Your task to perform on an android device: find which apps use the phone's location Image 0: 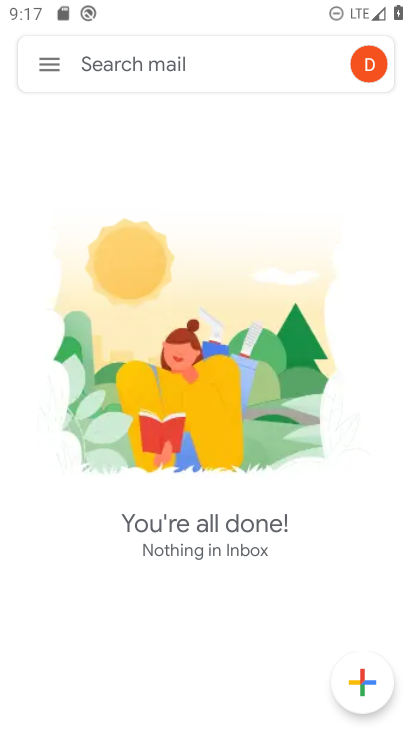
Step 0: press home button
Your task to perform on an android device: find which apps use the phone's location Image 1: 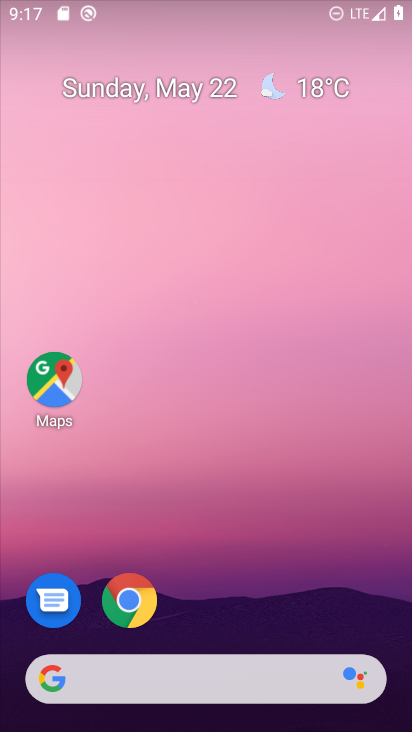
Step 1: drag from (382, 644) to (283, 81)
Your task to perform on an android device: find which apps use the phone's location Image 2: 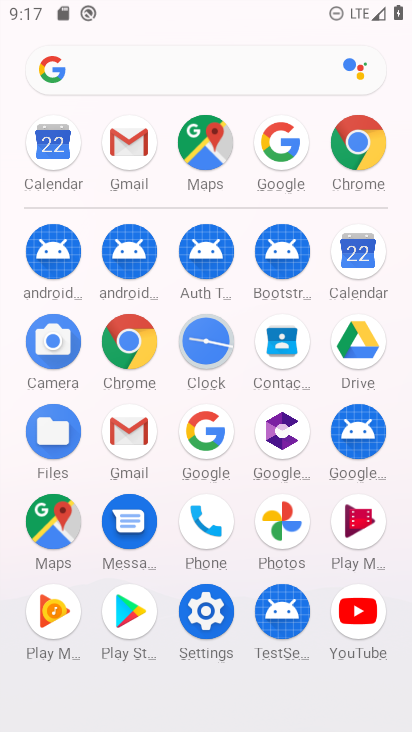
Step 2: click (212, 617)
Your task to perform on an android device: find which apps use the phone's location Image 3: 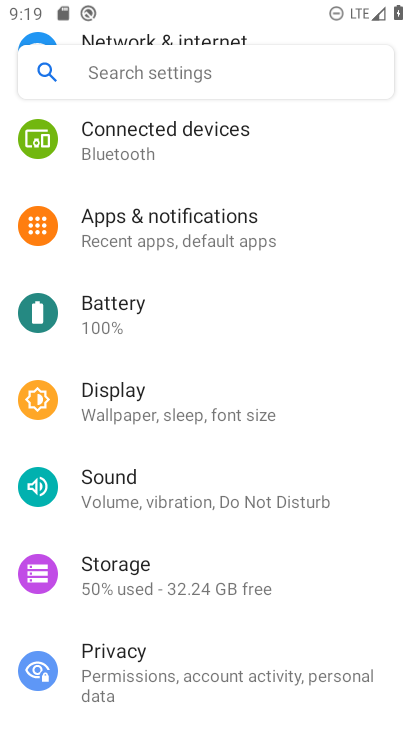
Step 3: drag from (145, 654) to (155, 236)
Your task to perform on an android device: find which apps use the phone's location Image 4: 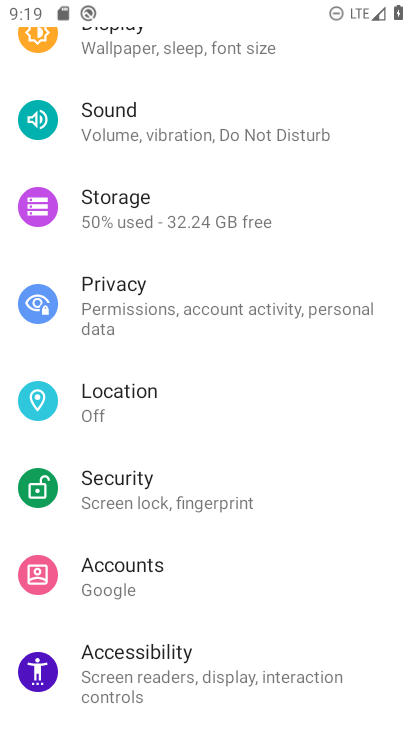
Step 4: click (154, 427)
Your task to perform on an android device: find which apps use the phone's location Image 5: 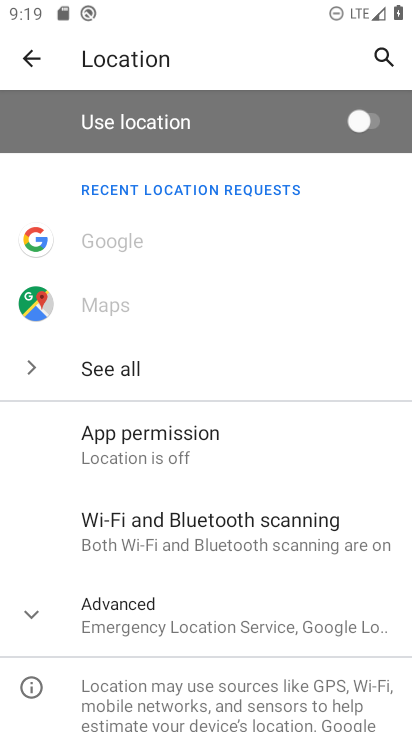
Step 5: click (185, 436)
Your task to perform on an android device: find which apps use the phone's location Image 6: 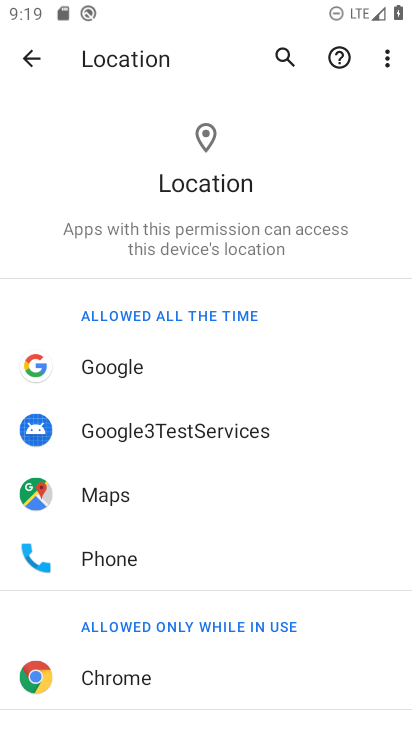
Step 6: click (160, 568)
Your task to perform on an android device: find which apps use the phone's location Image 7: 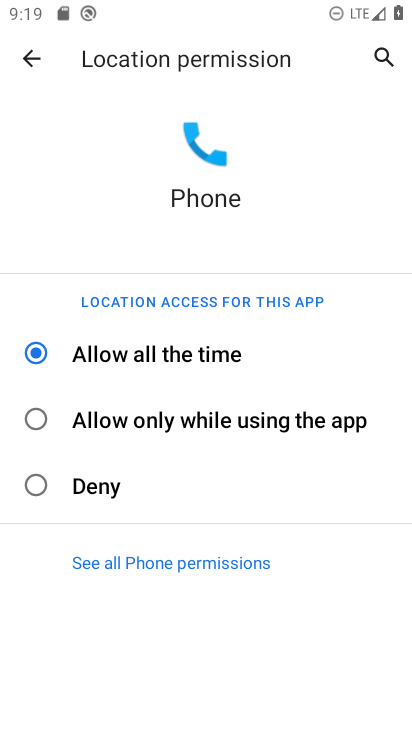
Step 7: task complete